Your task to perform on an android device: Search for pizza restaurants on Maps Image 0: 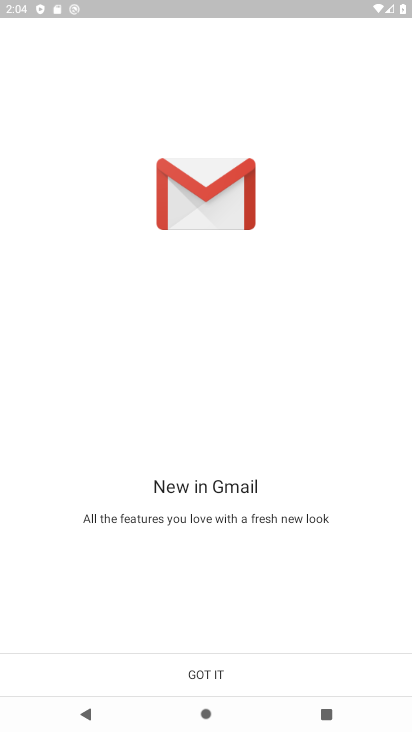
Step 0: press home button
Your task to perform on an android device: Search for pizza restaurants on Maps Image 1: 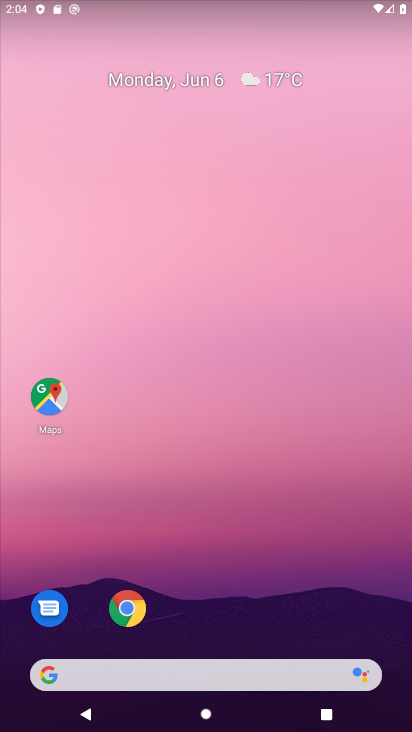
Step 1: click (55, 401)
Your task to perform on an android device: Search for pizza restaurants on Maps Image 2: 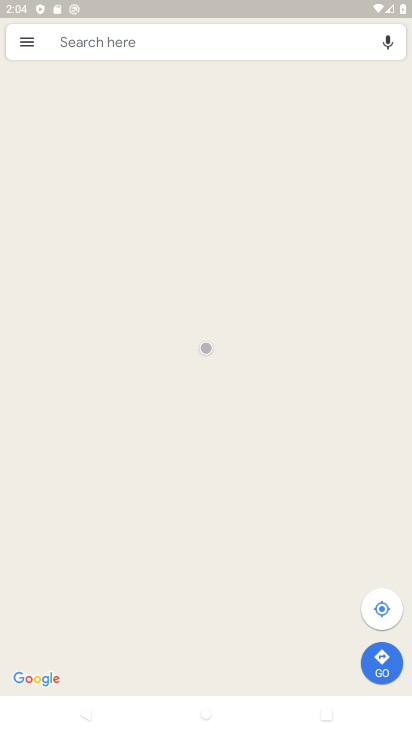
Step 2: click (191, 37)
Your task to perform on an android device: Search for pizza restaurants on Maps Image 3: 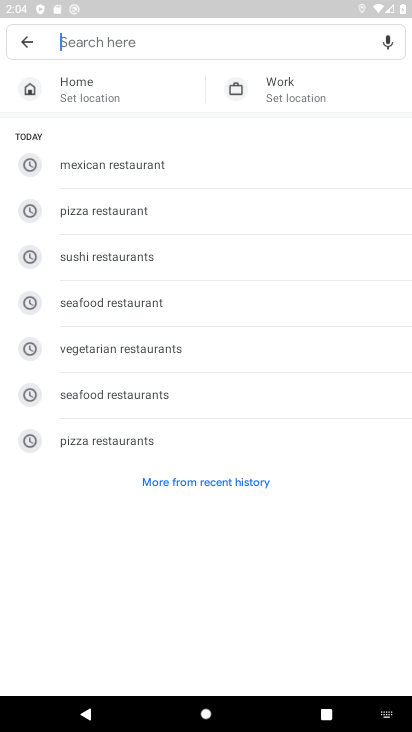
Step 3: type "pizza resaurants"
Your task to perform on an android device: Search for pizza restaurants on Maps Image 4: 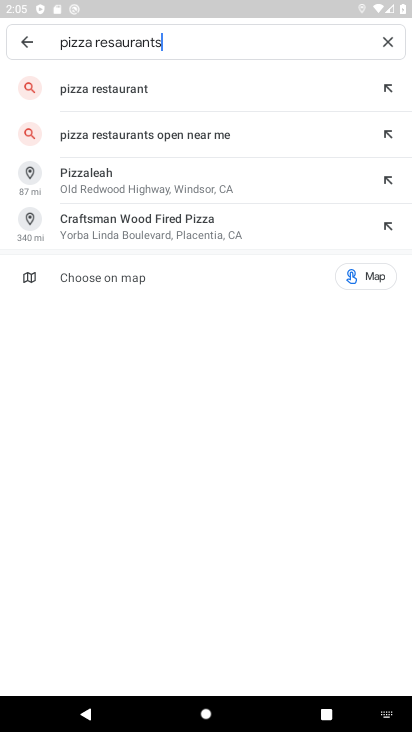
Step 4: click (116, 79)
Your task to perform on an android device: Search for pizza restaurants on Maps Image 5: 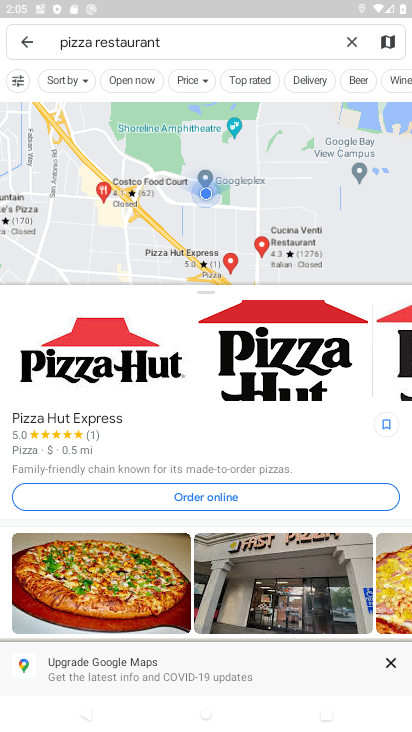
Step 5: task complete